Your task to perform on an android device: Search for custom made wallets on etsy.com Image 0: 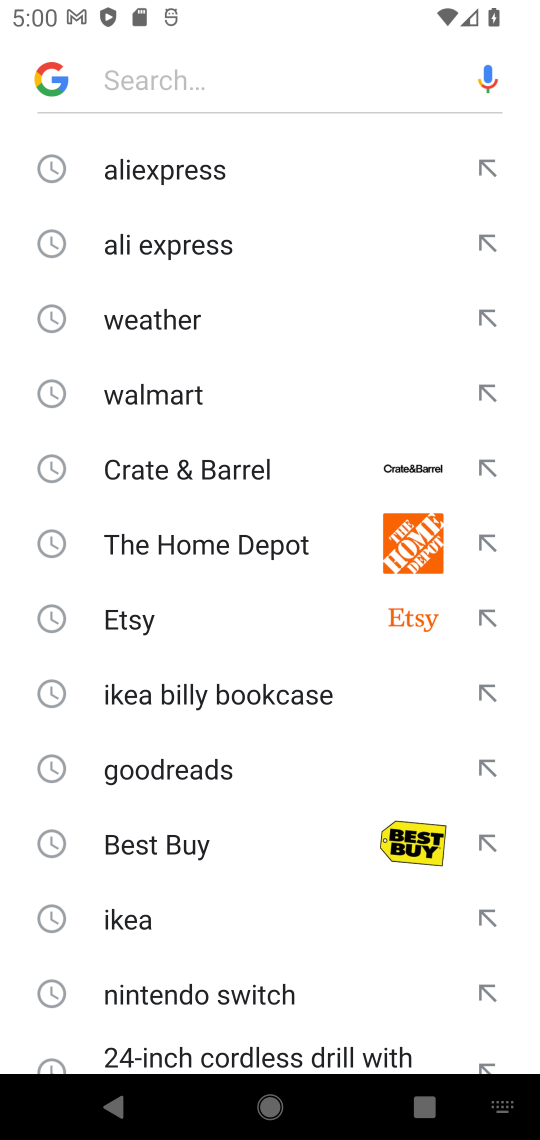
Step 0: click (139, 620)
Your task to perform on an android device: Search for custom made wallets on etsy.com Image 1: 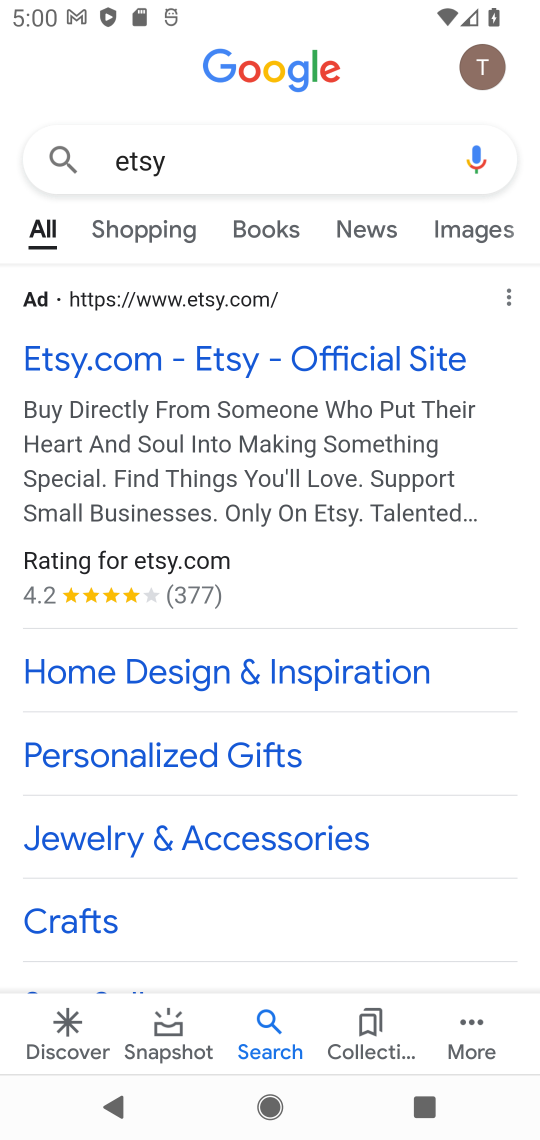
Step 1: click (81, 374)
Your task to perform on an android device: Search for custom made wallets on etsy.com Image 2: 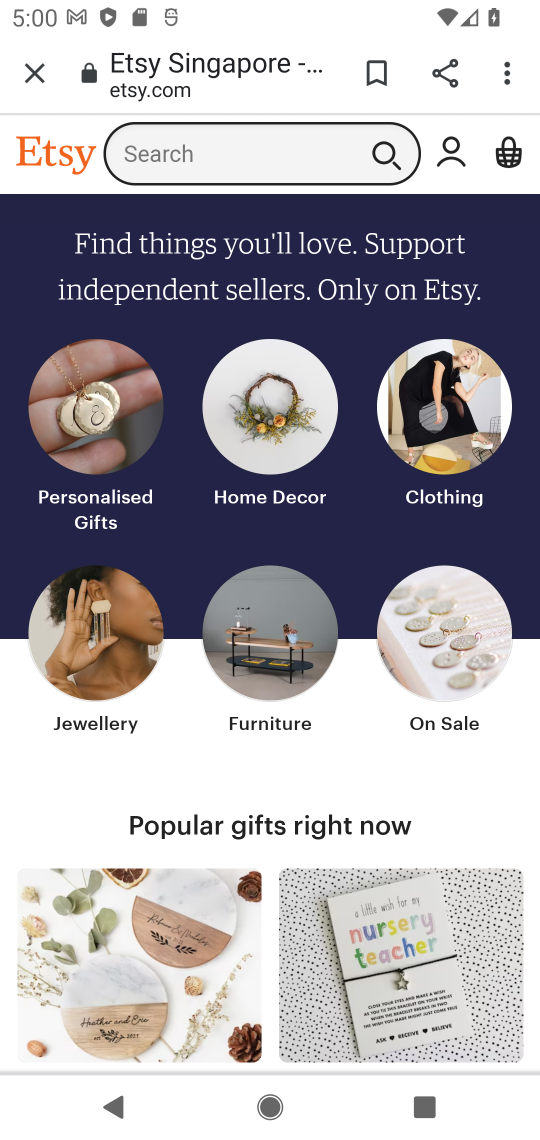
Step 2: click (388, 144)
Your task to perform on an android device: Search for custom made wallets on etsy.com Image 3: 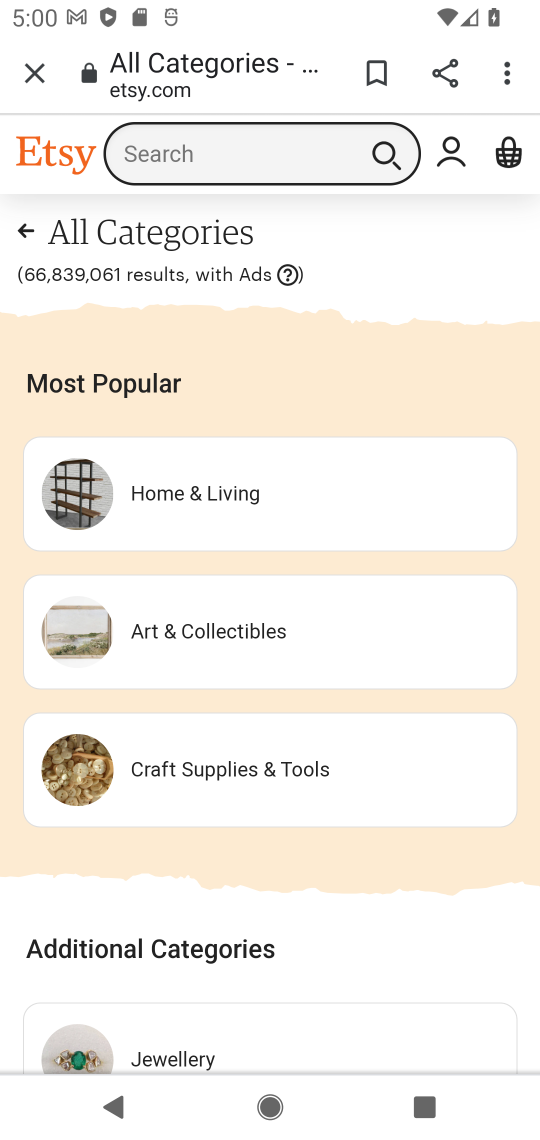
Step 3: click (380, 164)
Your task to perform on an android device: Search for custom made wallets on etsy.com Image 4: 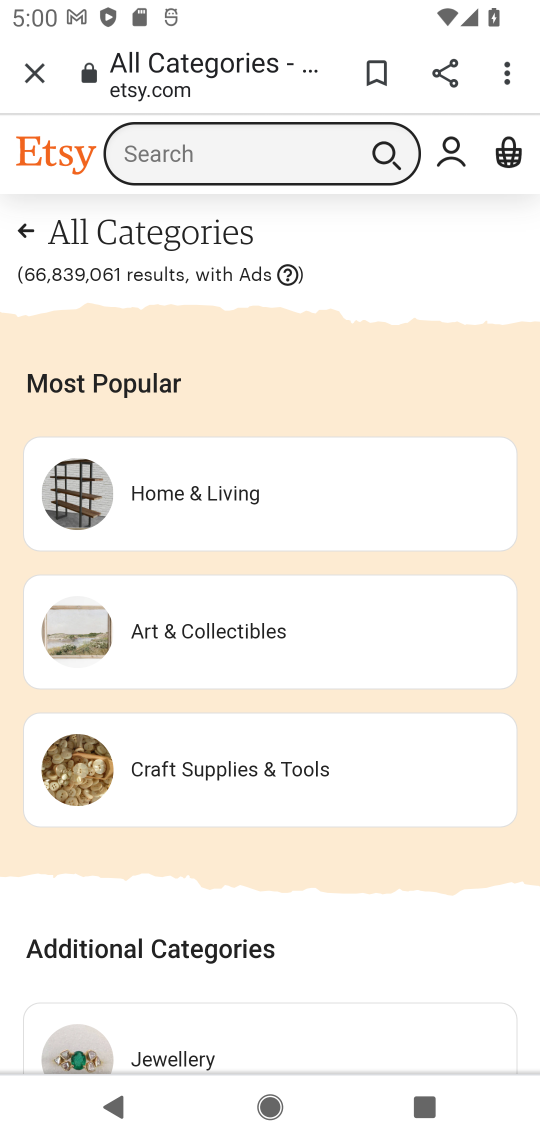
Step 4: click (165, 166)
Your task to perform on an android device: Search for custom made wallets on etsy.com Image 5: 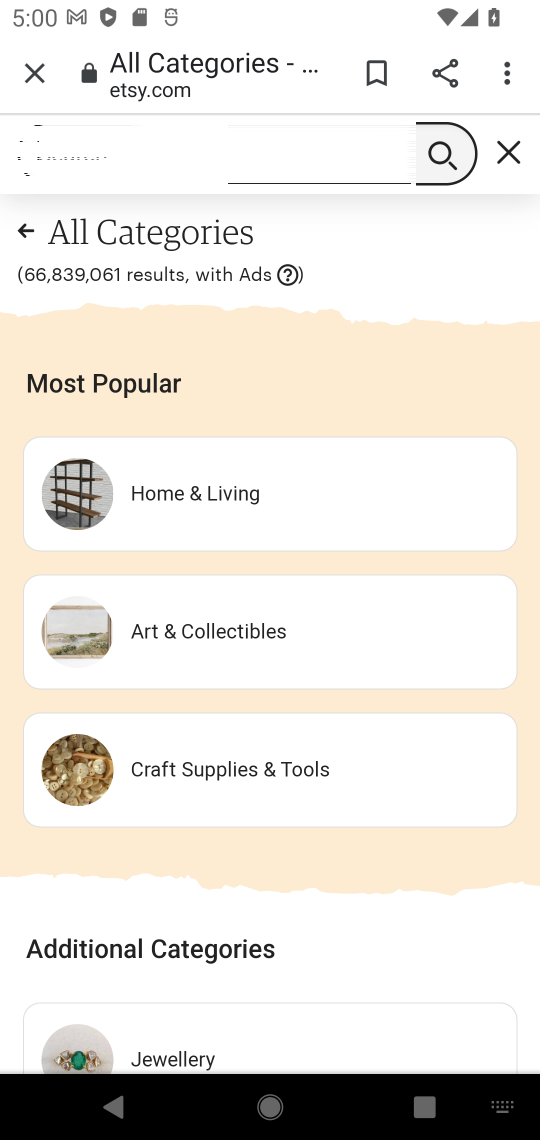
Step 5: type "custom made wallets"
Your task to perform on an android device: Search for custom made wallets on etsy.com Image 6: 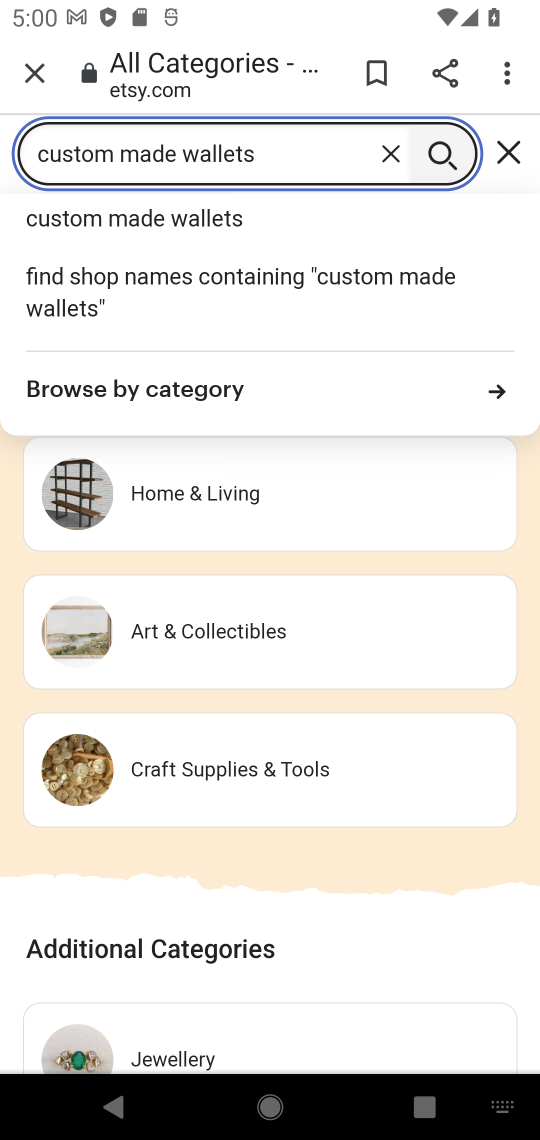
Step 6: click (152, 219)
Your task to perform on an android device: Search for custom made wallets on etsy.com Image 7: 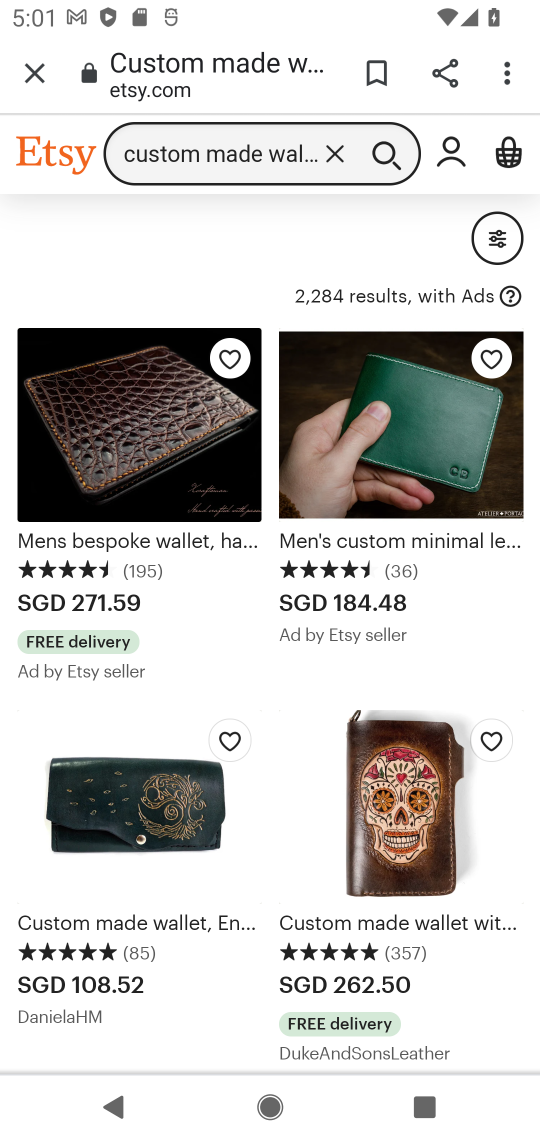
Step 7: task complete